Your task to perform on an android device: open sync settings in chrome Image 0: 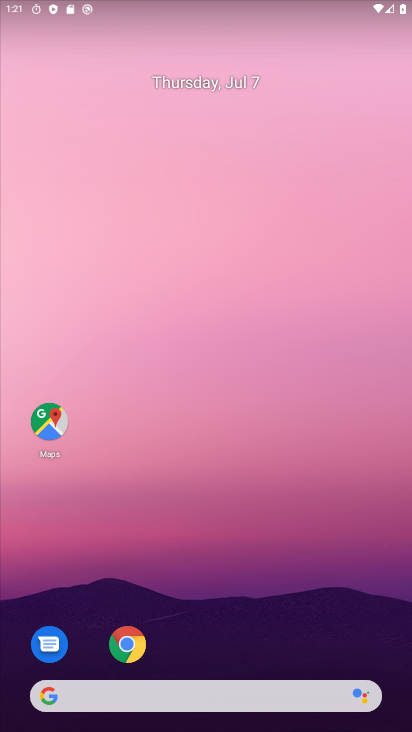
Step 0: click (132, 645)
Your task to perform on an android device: open sync settings in chrome Image 1: 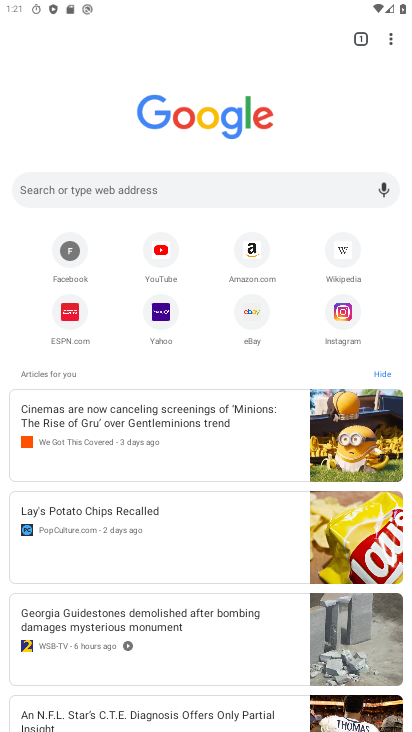
Step 1: click (392, 40)
Your task to perform on an android device: open sync settings in chrome Image 2: 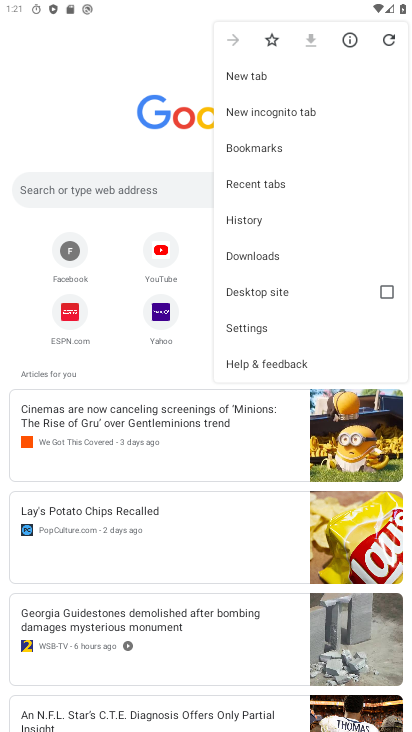
Step 2: click (239, 327)
Your task to perform on an android device: open sync settings in chrome Image 3: 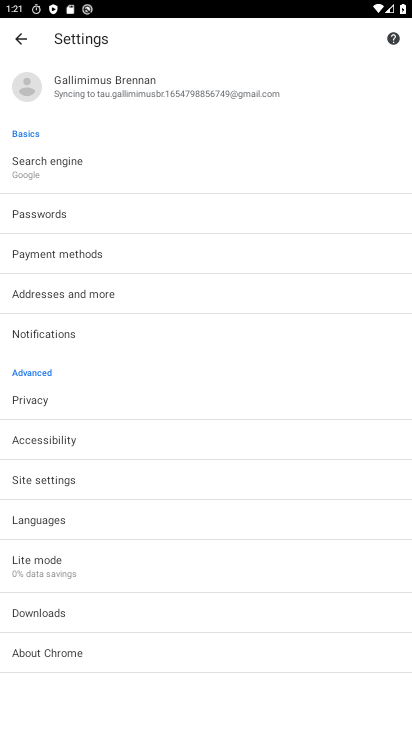
Step 3: click (33, 481)
Your task to perform on an android device: open sync settings in chrome Image 4: 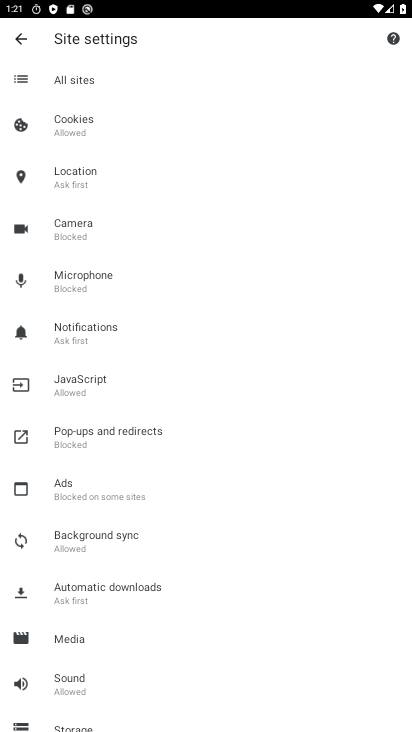
Step 4: click (88, 542)
Your task to perform on an android device: open sync settings in chrome Image 5: 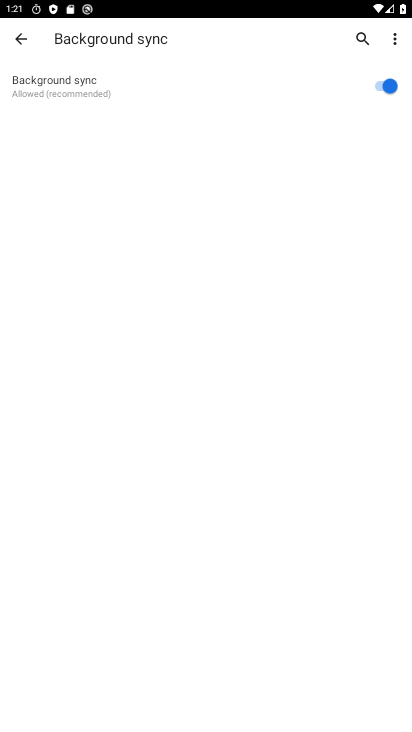
Step 5: task complete